Your task to perform on an android device: open a new tab in the chrome app Image 0: 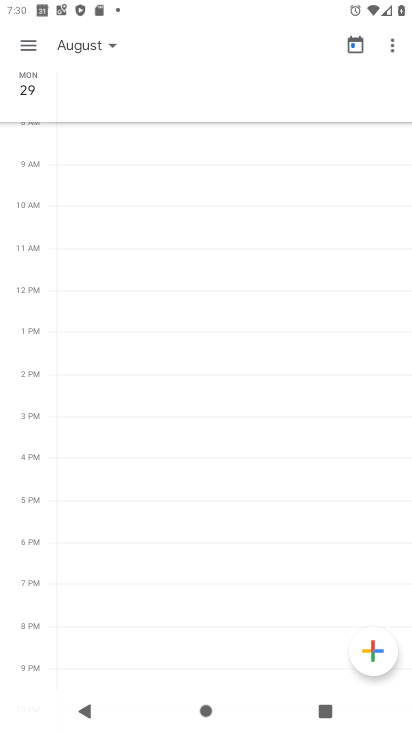
Step 0: press home button
Your task to perform on an android device: open a new tab in the chrome app Image 1: 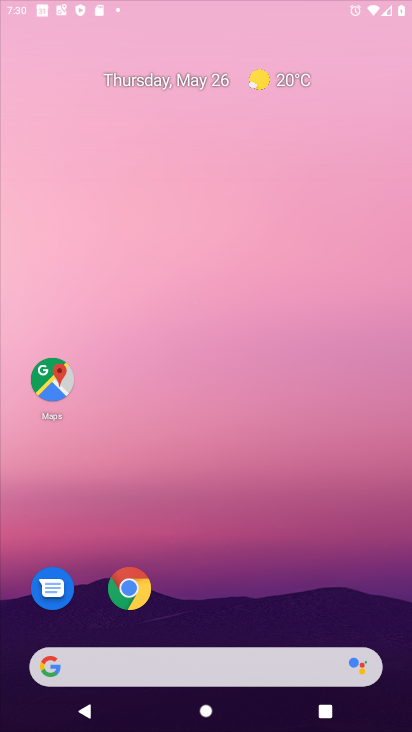
Step 1: drag from (345, 616) to (257, 109)
Your task to perform on an android device: open a new tab in the chrome app Image 2: 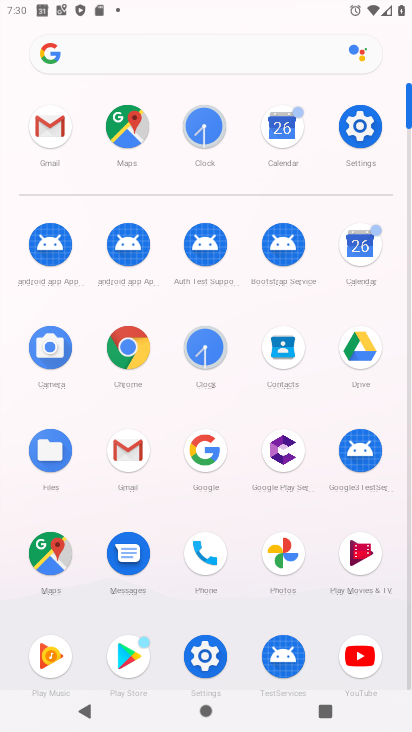
Step 2: click (127, 356)
Your task to perform on an android device: open a new tab in the chrome app Image 3: 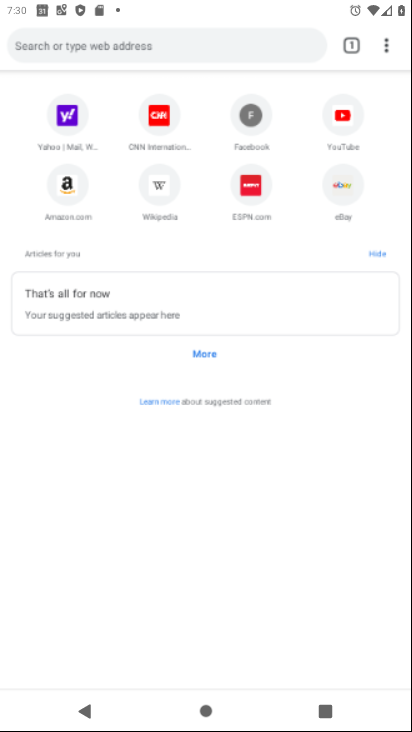
Step 3: click (385, 45)
Your task to perform on an android device: open a new tab in the chrome app Image 4: 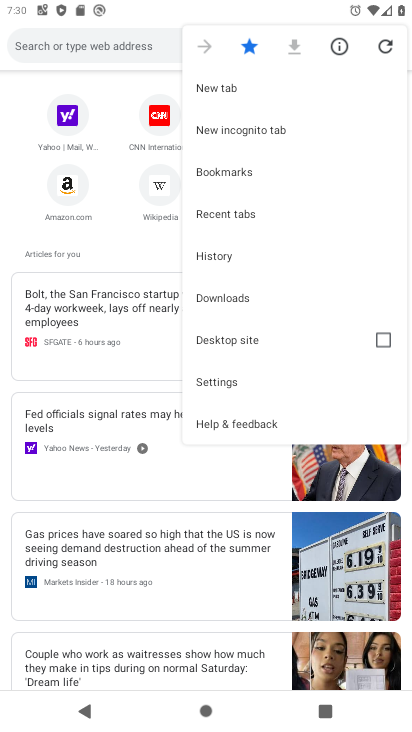
Step 4: click (248, 80)
Your task to perform on an android device: open a new tab in the chrome app Image 5: 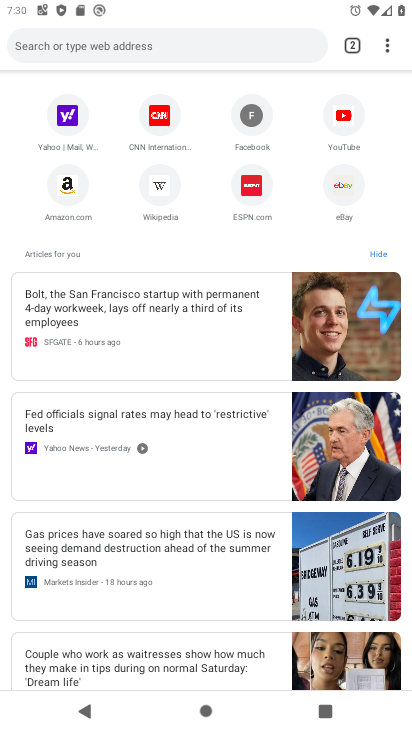
Step 5: task complete